Your task to perform on an android device: Search for vegetarian restaurants on Maps Image 0: 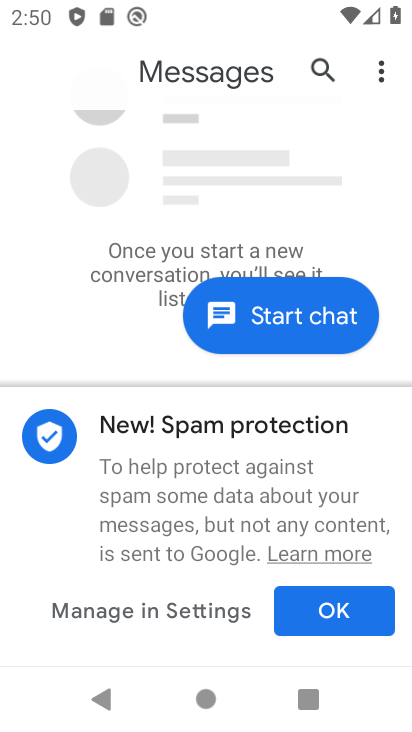
Step 0: press home button
Your task to perform on an android device: Search for vegetarian restaurants on Maps Image 1: 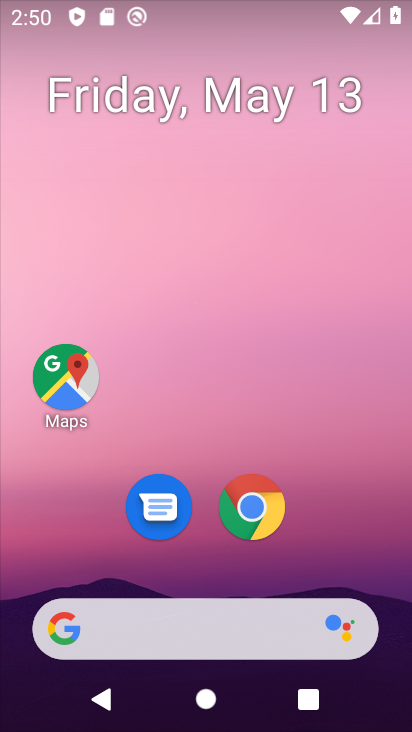
Step 1: click (86, 386)
Your task to perform on an android device: Search for vegetarian restaurants on Maps Image 2: 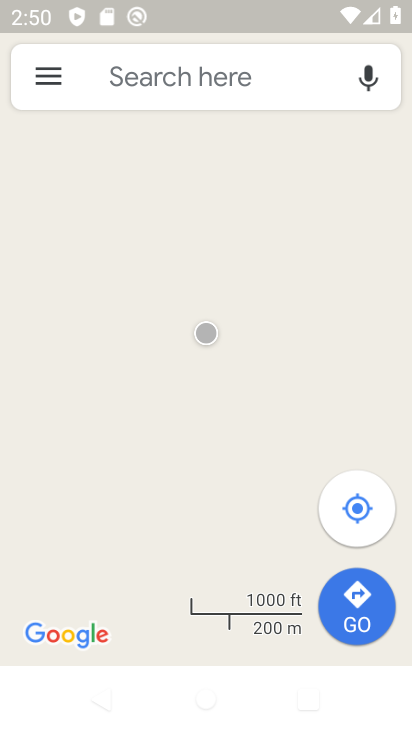
Step 2: click (191, 73)
Your task to perform on an android device: Search for vegetarian restaurants on Maps Image 3: 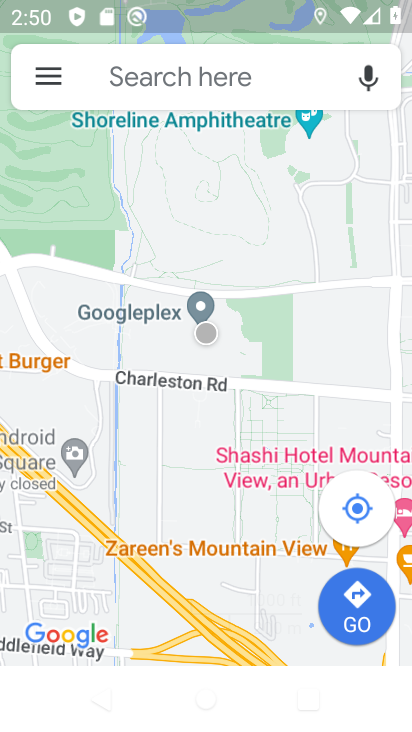
Step 3: click (191, 73)
Your task to perform on an android device: Search for vegetarian restaurants on Maps Image 4: 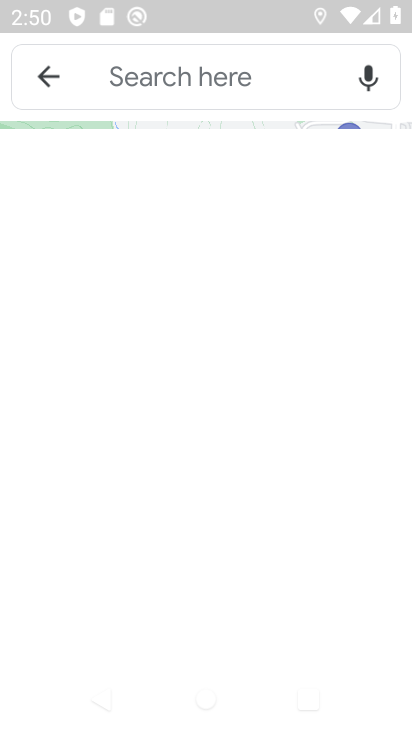
Step 4: click (191, 73)
Your task to perform on an android device: Search for vegetarian restaurants on Maps Image 5: 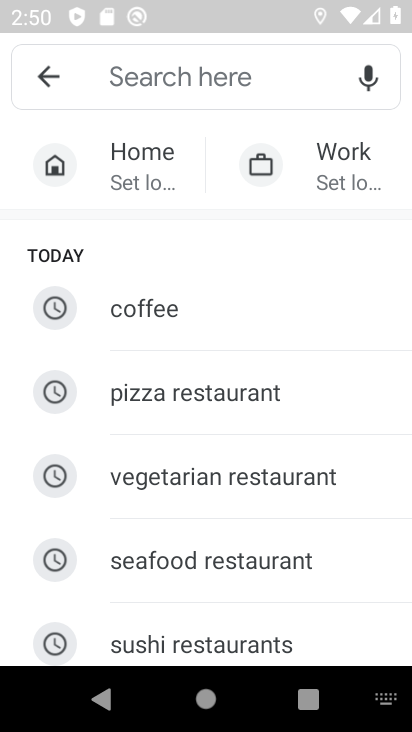
Step 5: click (196, 477)
Your task to perform on an android device: Search for vegetarian restaurants on Maps Image 6: 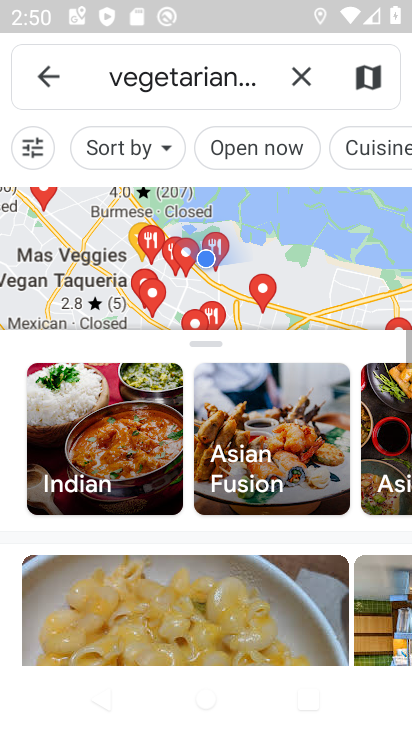
Step 6: task complete